Your task to perform on an android device: Go to Android settings Image 0: 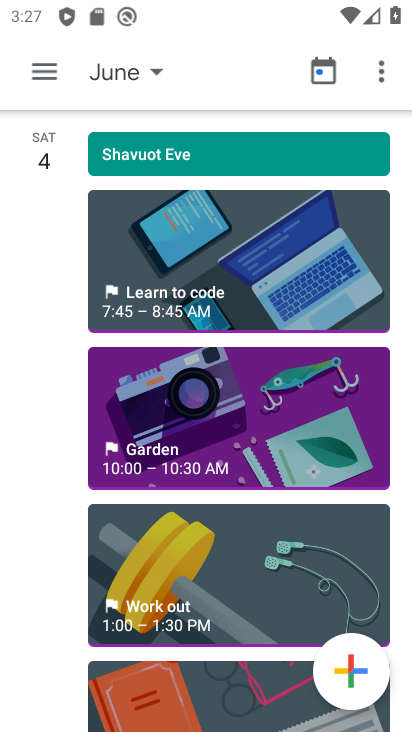
Step 0: press home button
Your task to perform on an android device: Go to Android settings Image 1: 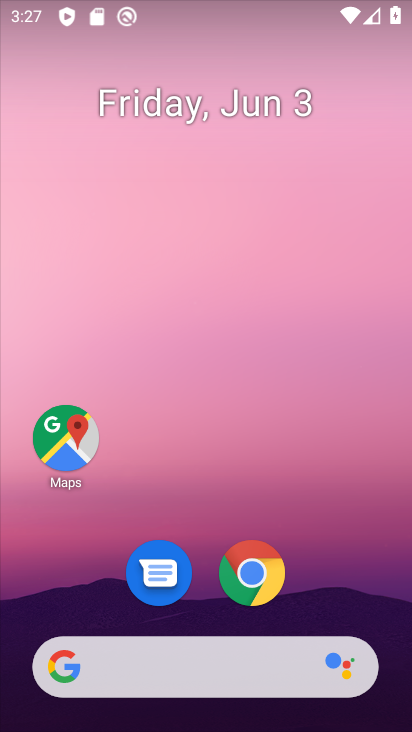
Step 1: drag from (384, 703) to (366, 249)
Your task to perform on an android device: Go to Android settings Image 2: 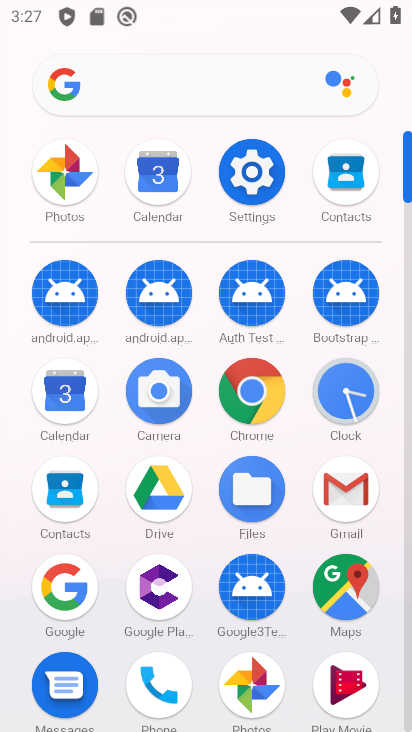
Step 2: click (260, 184)
Your task to perform on an android device: Go to Android settings Image 3: 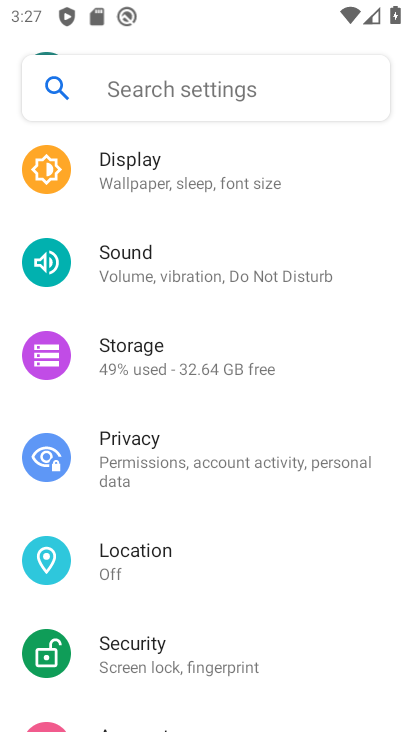
Step 3: task complete